Your task to perform on an android device: Open calendar and show me the first week of next month Image 0: 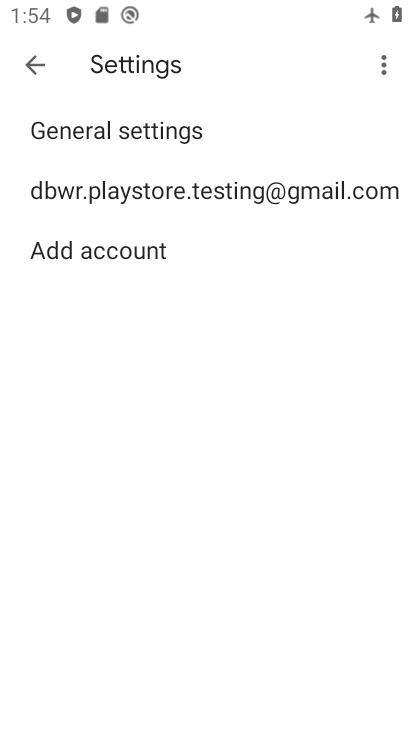
Step 0: press home button
Your task to perform on an android device: Open calendar and show me the first week of next month Image 1: 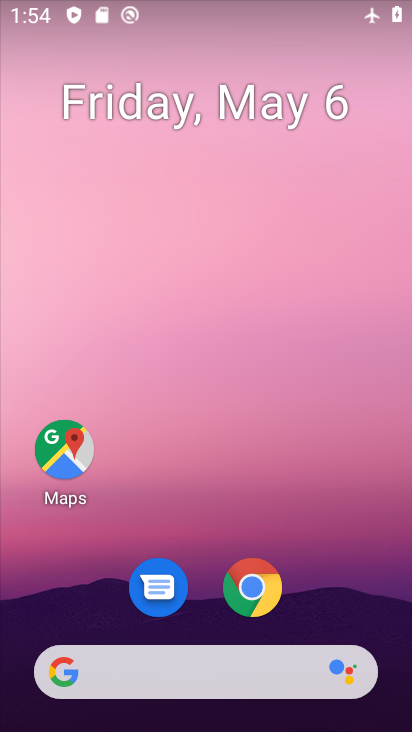
Step 1: drag from (321, 606) to (319, 50)
Your task to perform on an android device: Open calendar and show me the first week of next month Image 2: 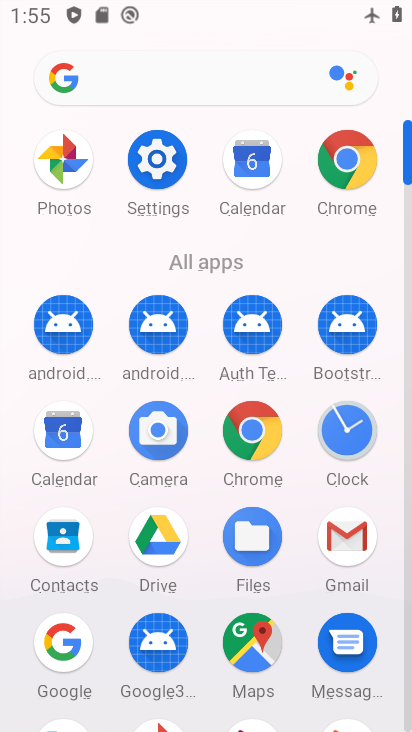
Step 2: click (67, 437)
Your task to perform on an android device: Open calendar and show me the first week of next month Image 3: 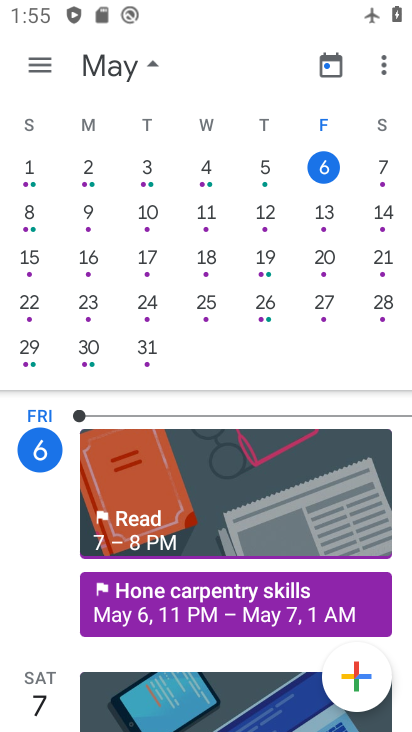
Step 3: task complete